Your task to perform on an android device: Open Google Maps Image 0: 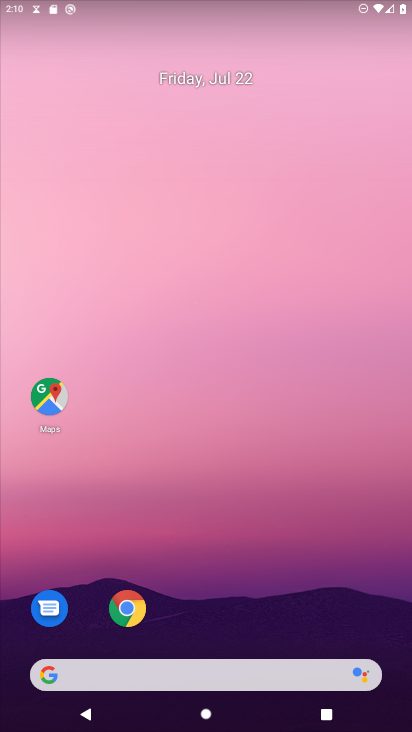
Step 0: click (53, 406)
Your task to perform on an android device: Open Google Maps Image 1: 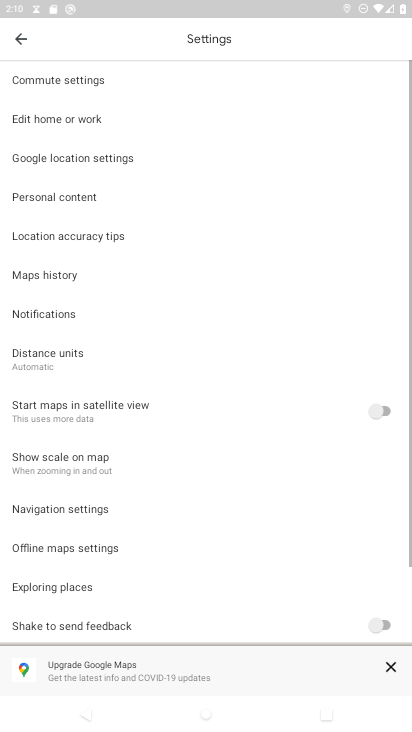
Step 1: click (15, 35)
Your task to perform on an android device: Open Google Maps Image 2: 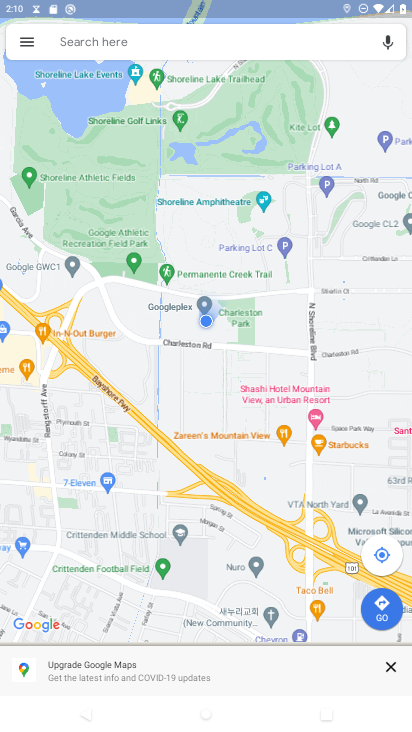
Step 2: task complete